Your task to perform on an android device: uninstall "Contacts" Image 0: 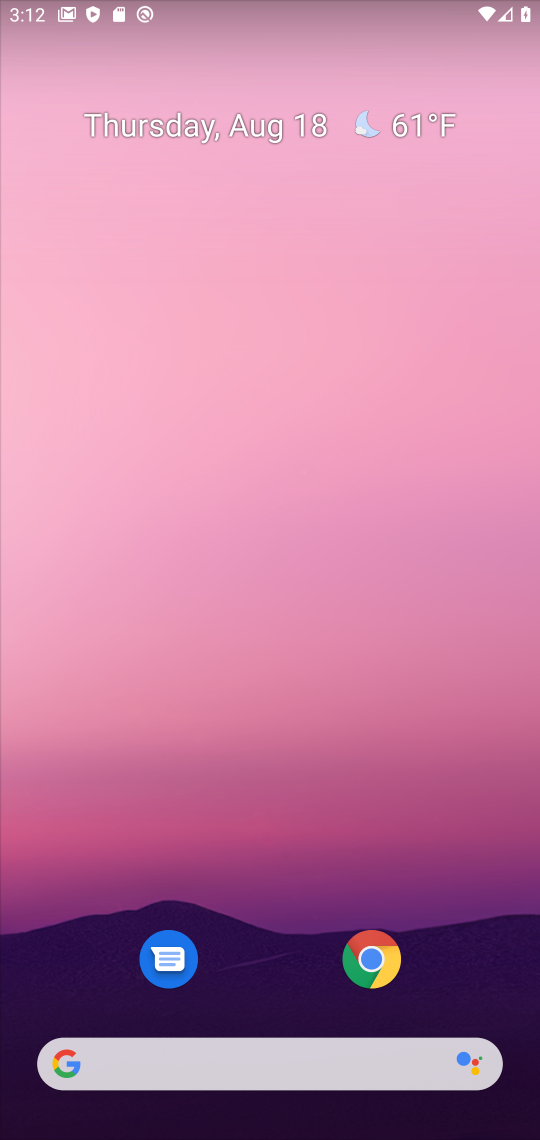
Step 0: drag from (298, 1048) to (479, 232)
Your task to perform on an android device: uninstall "Contacts" Image 1: 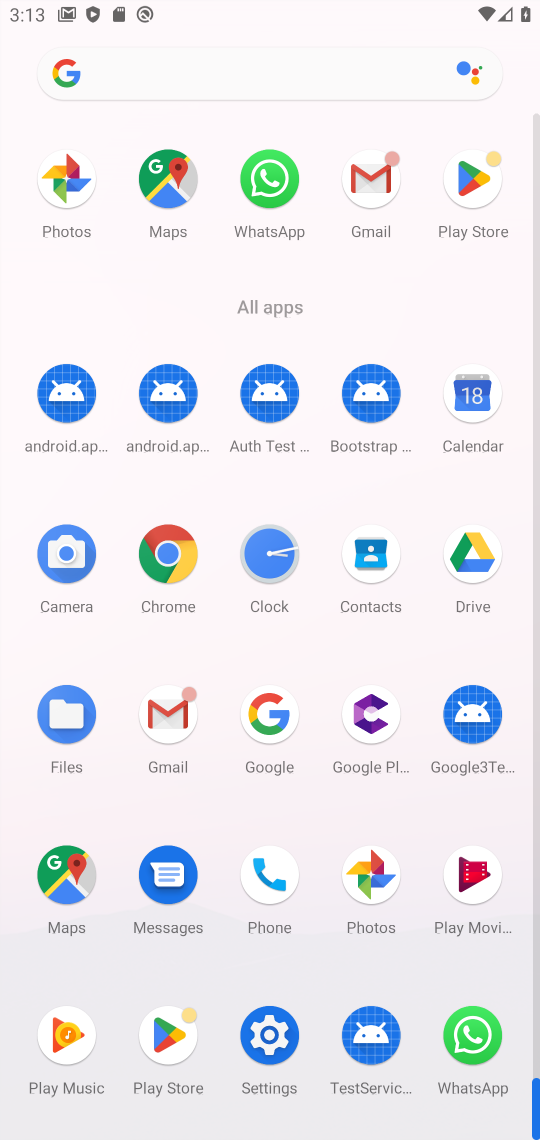
Step 1: click (373, 579)
Your task to perform on an android device: uninstall "Contacts" Image 2: 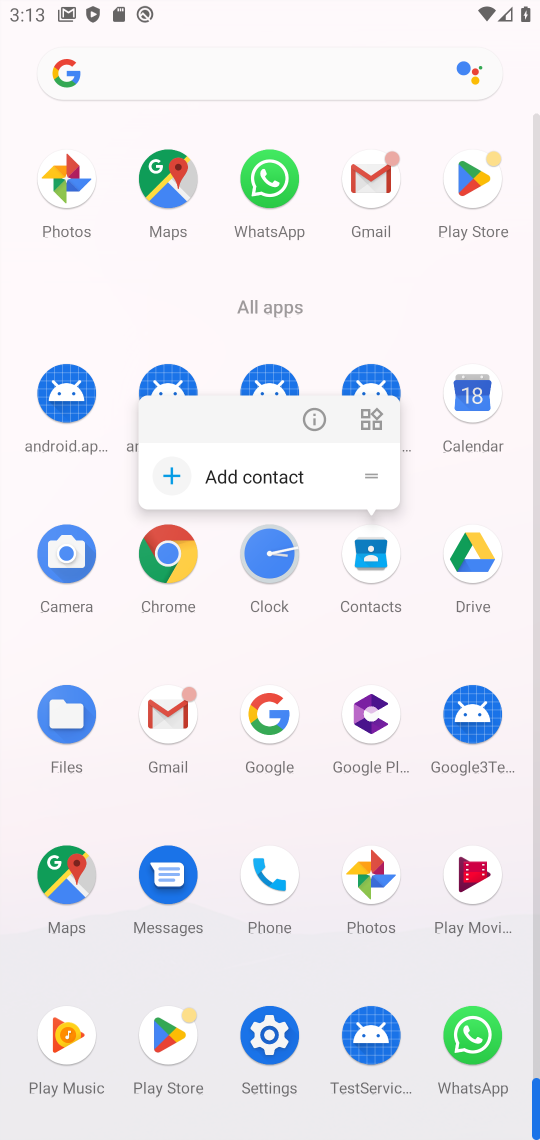
Step 2: click (319, 434)
Your task to perform on an android device: uninstall "Contacts" Image 3: 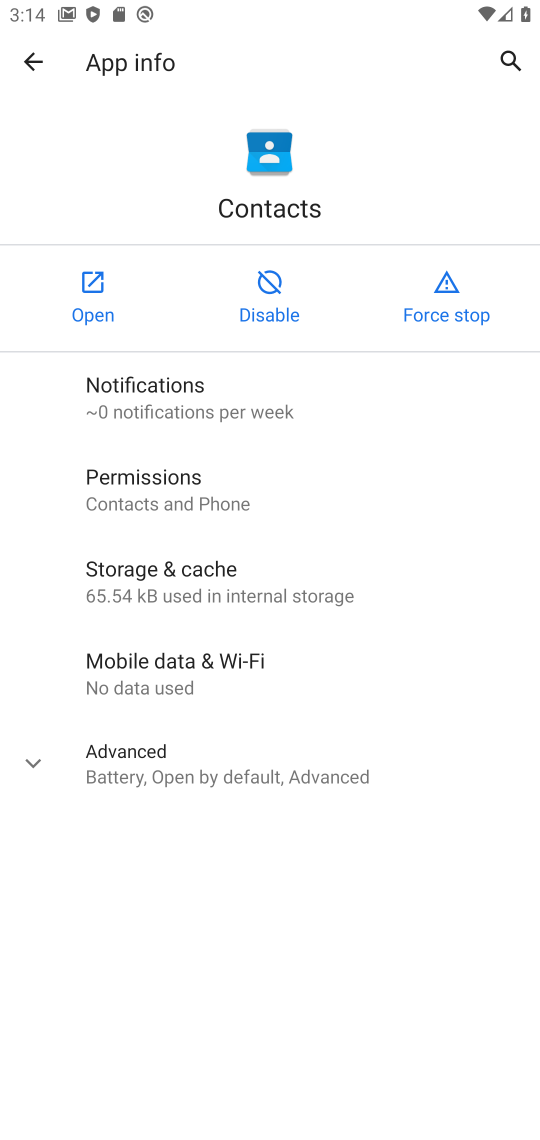
Step 3: task complete